Your task to perform on an android device: What is the news today? Image 0: 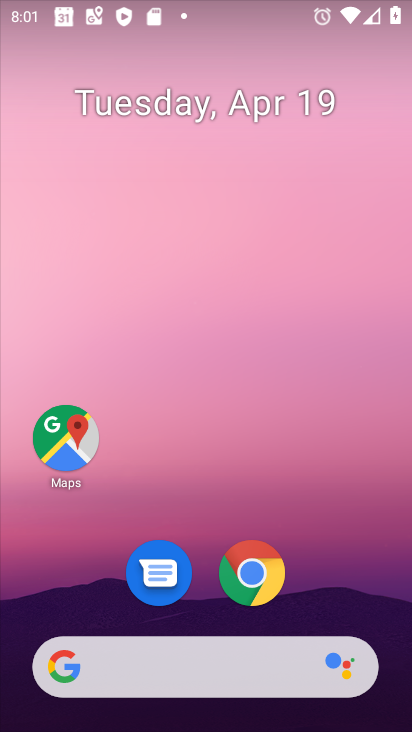
Step 0: drag from (216, 703) to (274, 241)
Your task to perform on an android device: What is the news today? Image 1: 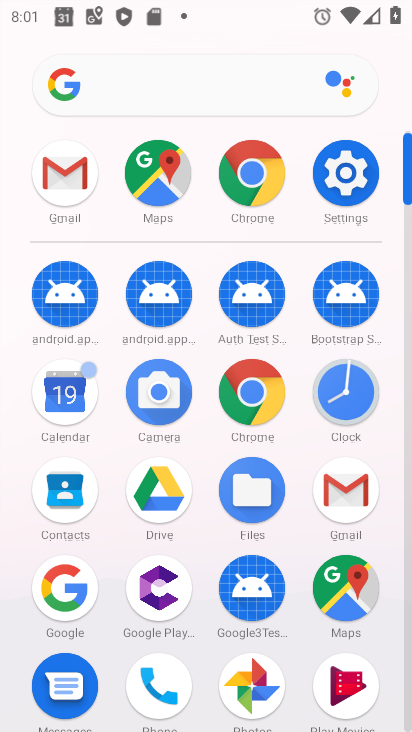
Step 1: click (157, 98)
Your task to perform on an android device: What is the news today? Image 2: 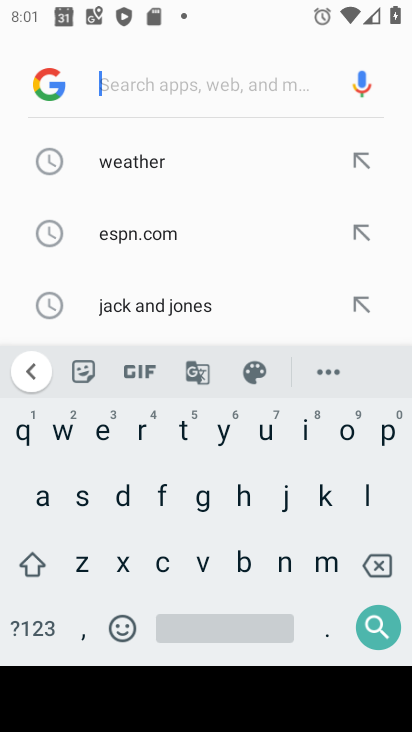
Step 2: click (278, 562)
Your task to perform on an android device: What is the news today? Image 3: 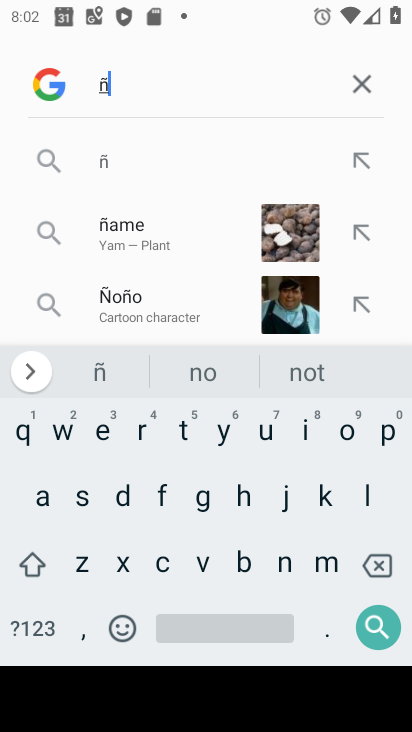
Step 3: click (372, 571)
Your task to perform on an android device: What is the news today? Image 4: 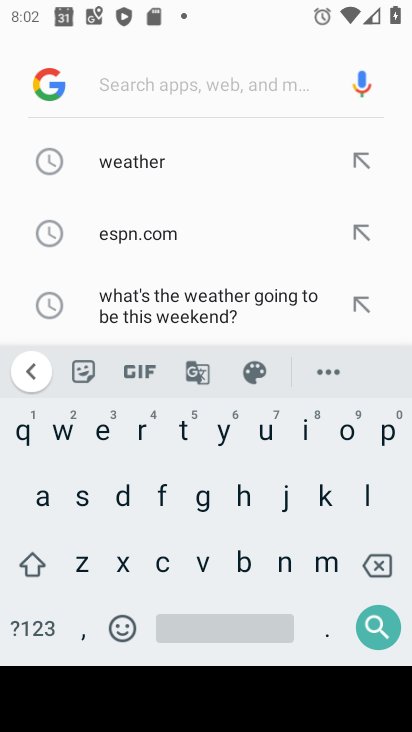
Step 4: click (278, 563)
Your task to perform on an android device: What is the news today? Image 5: 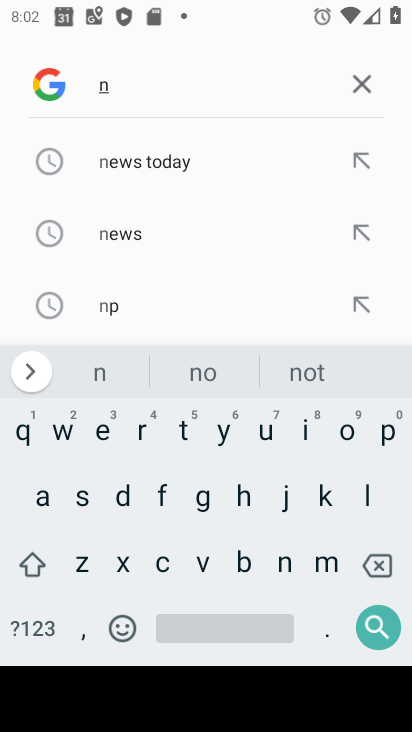
Step 5: click (171, 161)
Your task to perform on an android device: What is the news today? Image 6: 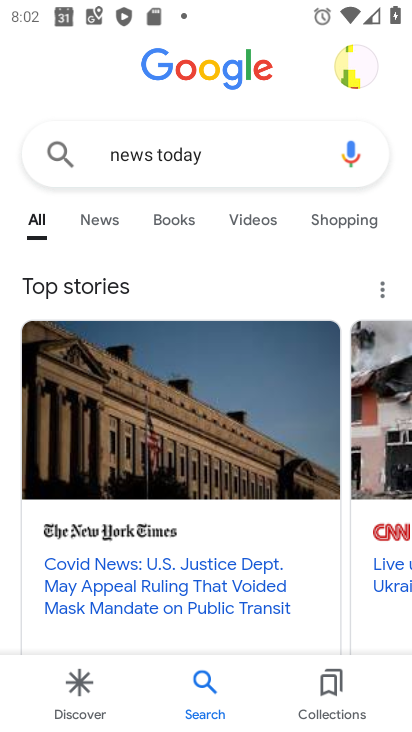
Step 6: task complete